Your task to perform on an android device: Clear the cart on costco.com. Add "apple airpods pro" to the cart on costco.com, then select checkout. Image 0: 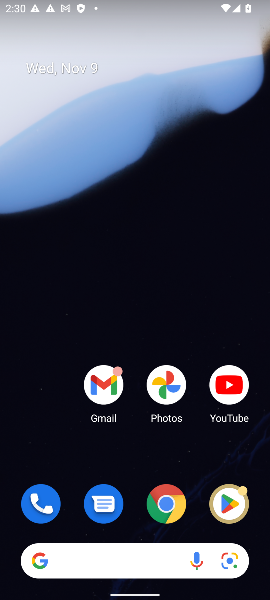
Step 0: click (175, 504)
Your task to perform on an android device: Clear the cart on costco.com. Add "apple airpods pro" to the cart on costco.com, then select checkout. Image 1: 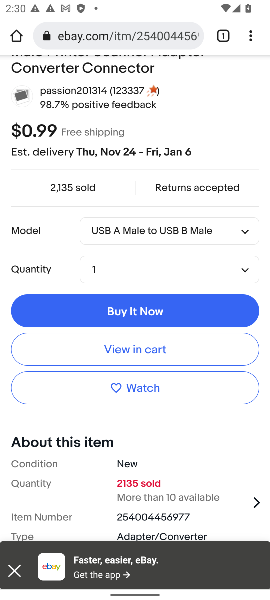
Step 1: click (99, 43)
Your task to perform on an android device: Clear the cart on costco.com. Add "apple airpods pro" to the cart on costco.com, then select checkout. Image 2: 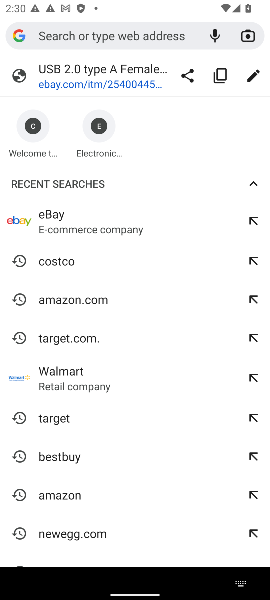
Step 2: type "costco.com"
Your task to perform on an android device: Clear the cart on costco.com. Add "apple airpods pro" to the cart on costco.com, then select checkout. Image 3: 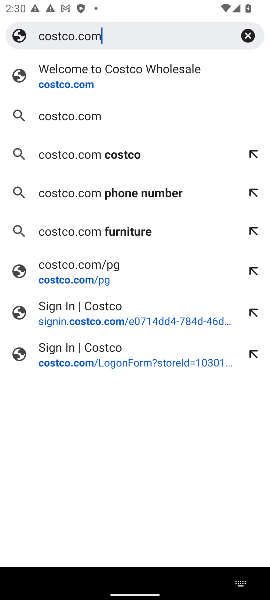
Step 3: click (58, 84)
Your task to perform on an android device: Clear the cart on costco.com. Add "apple airpods pro" to the cart on costco.com, then select checkout. Image 4: 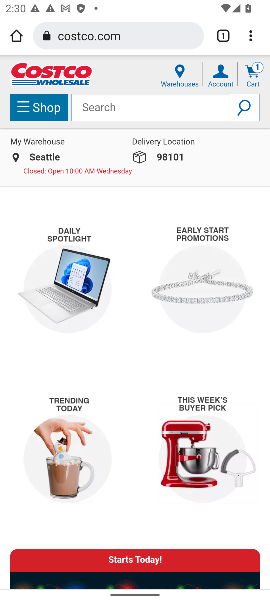
Step 4: click (106, 108)
Your task to perform on an android device: Clear the cart on costco.com. Add "apple airpods pro" to the cart on costco.com, then select checkout. Image 5: 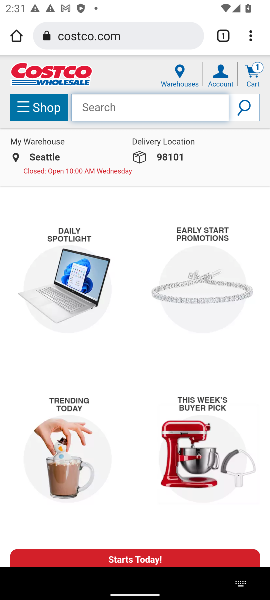
Step 5: type "apple airpods pro"
Your task to perform on an android device: Clear the cart on costco.com. Add "apple airpods pro" to the cart on costco.com, then select checkout. Image 6: 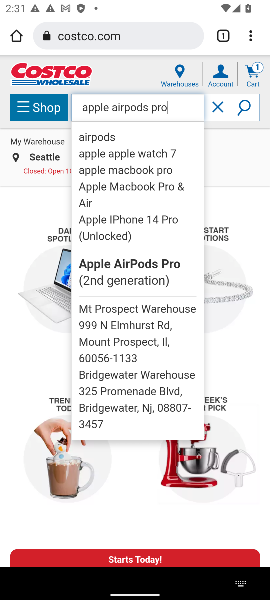
Step 6: click (247, 111)
Your task to perform on an android device: Clear the cart on costco.com. Add "apple airpods pro" to the cart on costco.com, then select checkout. Image 7: 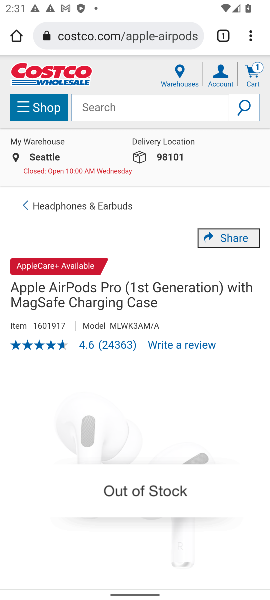
Step 7: press back button
Your task to perform on an android device: Clear the cart on costco.com. Add "apple airpods pro" to the cart on costco.com, then select checkout. Image 8: 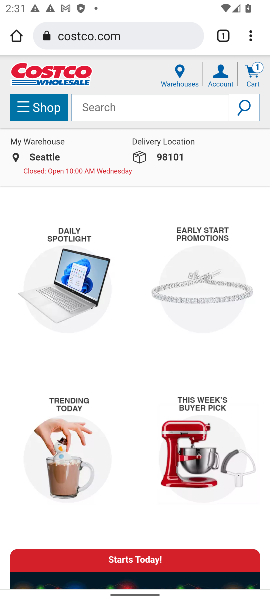
Step 8: drag from (124, 452) to (116, 199)
Your task to perform on an android device: Clear the cart on costco.com. Add "apple airpods pro" to the cart on costco.com, then select checkout. Image 9: 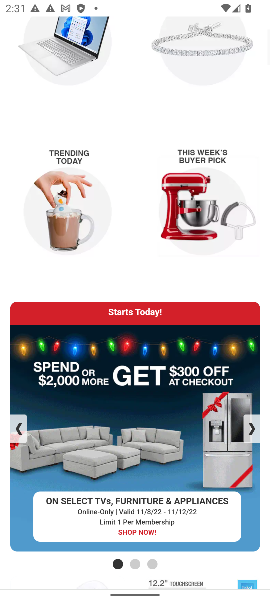
Step 9: drag from (119, 452) to (125, 597)
Your task to perform on an android device: Clear the cart on costco.com. Add "apple airpods pro" to the cart on costco.com, then select checkout. Image 10: 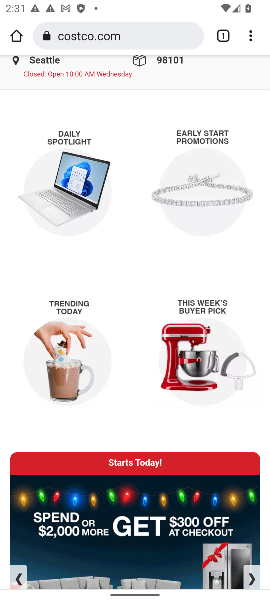
Step 10: drag from (95, 166) to (100, 319)
Your task to perform on an android device: Clear the cart on costco.com. Add "apple airpods pro" to the cart on costco.com, then select checkout. Image 11: 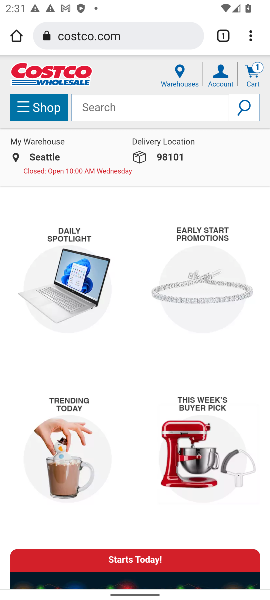
Step 11: click (105, 110)
Your task to perform on an android device: Clear the cart on costco.com. Add "apple airpods pro" to the cart on costco.com, then select checkout. Image 12: 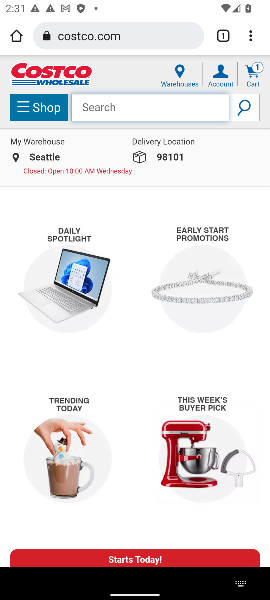
Step 12: type "apple airpods pro"
Your task to perform on an android device: Clear the cart on costco.com. Add "apple airpods pro" to the cart on costco.com, then select checkout. Image 13: 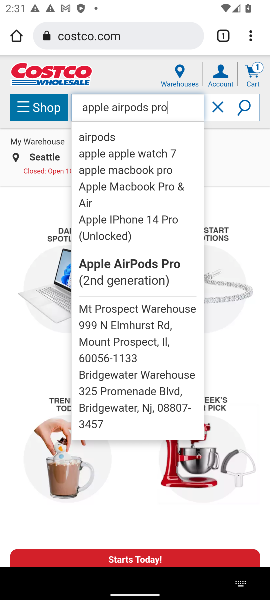
Step 13: click (244, 112)
Your task to perform on an android device: Clear the cart on costco.com. Add "apple airpods pro" to the cart on costco.com, then select checkout. Image 14: 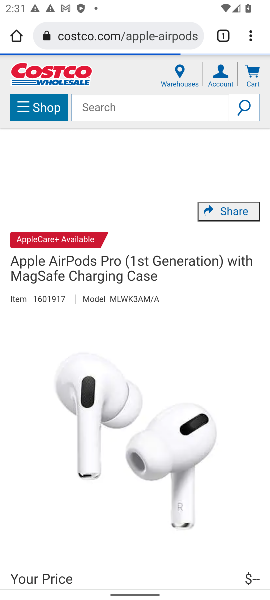
Step 14: drag from (160, 356) to (143, 149)
Your task to perform on an android device: Clear the cart on costco.com. Add "apple airpods pro" to the cart on costco.com, then select checkout. Image 15: 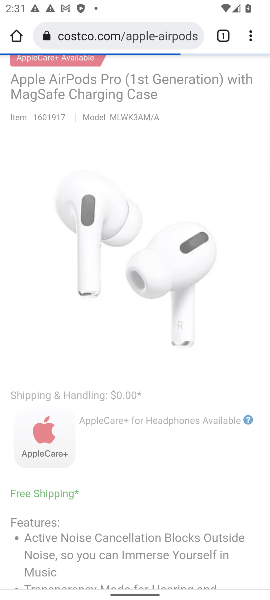
Step 15: drag from (114, 492) to (122, 177)
Your task to perform on an android device: Clear the cart on costco.com. Add "apple airpods pro" to the cart on costco.com, then select checkout. Image 16: 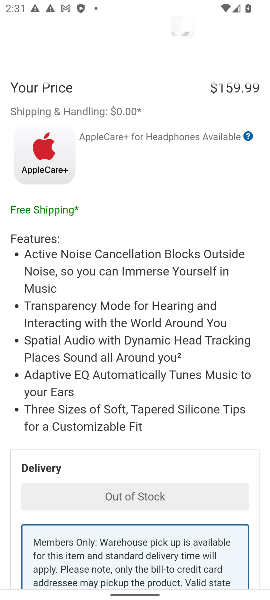
Step 16: drag from (123, 490) to (114, 197)
Your task to perform on an android device: Clear the cart on costco.com. Add "apple airpods pro" to the cart on costco.com, then select checkout. Image 17: 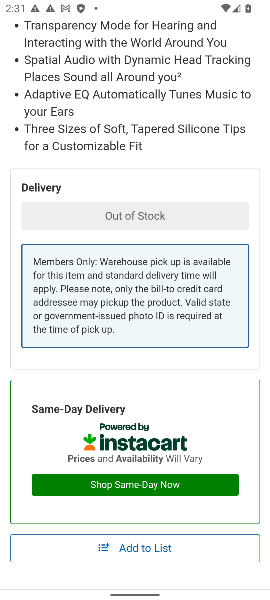
Step 17: drag from (113, 190) to (139, 585)
Your task to perform on an android device: Clear the cart on costco.com. Add "apple airpods pro" to the cart on costco.com, then select checkout. Image 18: 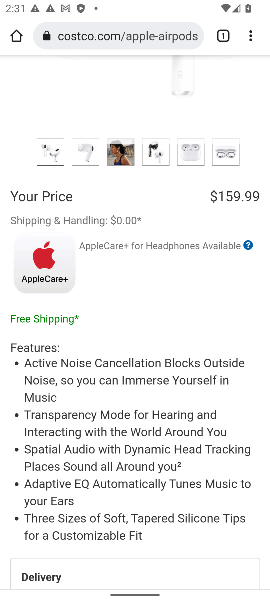
Step 18: drag from (140, 152) to (127, 507)
Your task to perform on an android device: Clear the cart on costco.com. Add "apple airpods pro" to the cart on costco.com, then select checkout. Image 19: 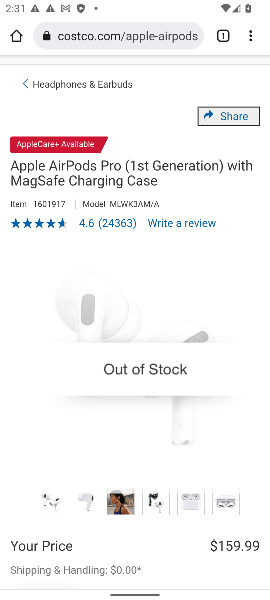
Step 19: drag from (153, 88) to (156, 369)
Your task to perform on an android device: Clear the cart on costco.com. Add "apple airpods pro" to the cart on costco.com, then select checkout. Image 20: 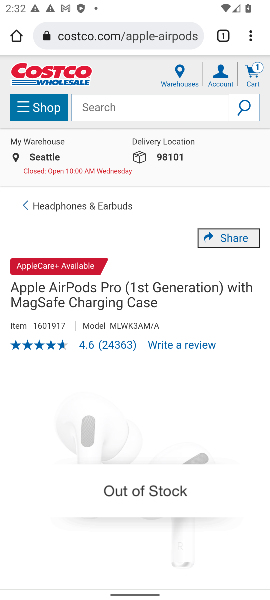
Step 20: click (18, 203)
Your task to perform on an android device: Clear the cart on costco.com. Add "apple airpods pro" to the cart on costco.com, then select checkout. Image 21: 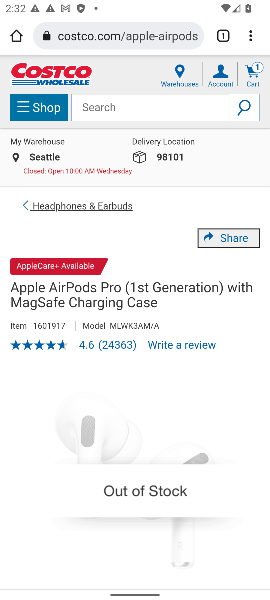
Step 21: click (24, 204)
Your task to perform on an android device: Clear the cart on costco.com. Add "apple airpods pro" to the cart on costco.com, then select checkout. Image 22: 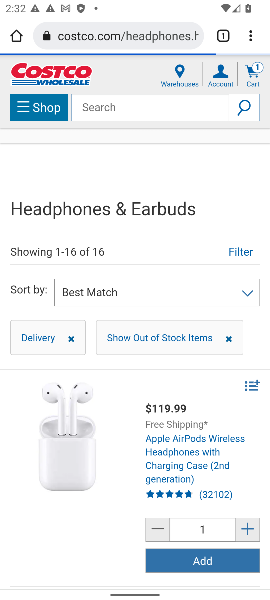
Step 22: drag from (118, 410) to (120, 177)
Your task to perform on an android device: Clear the cart on costco.com. Add "apple airpods pro" to the cart on costco.com, then select checkout. Image 23: 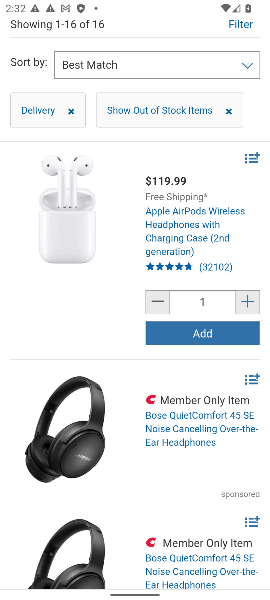
Step 23: drag from (136, 397) to (134, 152)
Your task to perform on an android device: Clear the cart on costco.com. Add "apple airpods pro" to the cart on costco.com, then select checkout. Image 24: 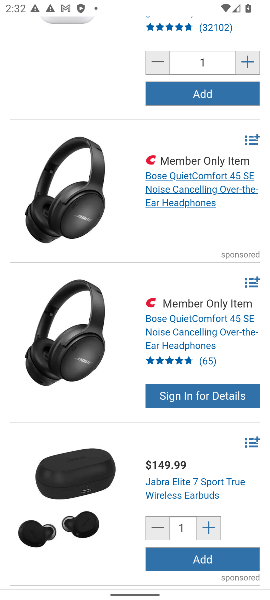
Step 24: drag from (122, 415) to (130, 130)
Your task to perform on an android device: Clear the cart on costco.com. Add "apple airpods pro" to the cart on costco.com, then select checkout. Image 25: 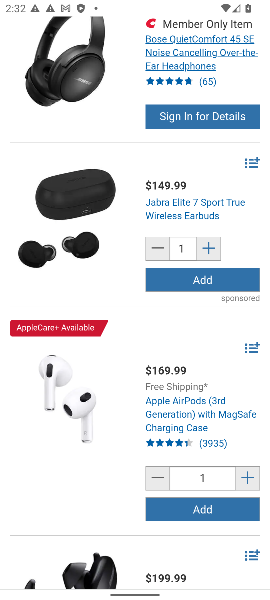
Step 25: drag from (127, 486) to (136, 294)
Your task to perform on an android device: Clear the cart on costco.com. Add "apple airpods pro" to the cart on costco.com, then select checkout. Image 26: 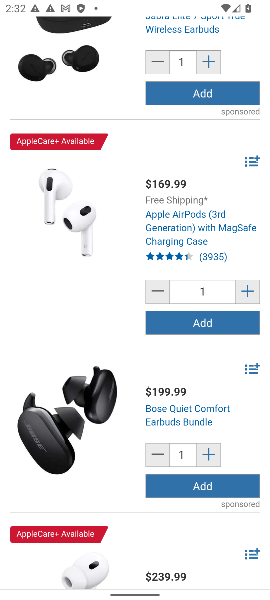
Step 26: drag from (105, 458) to (116, 236)
Your task to perform on an android device: Clear the cart on costco.com. Add "apple airpods pro" to the cart on costco.com, then select checkout. Image 27: 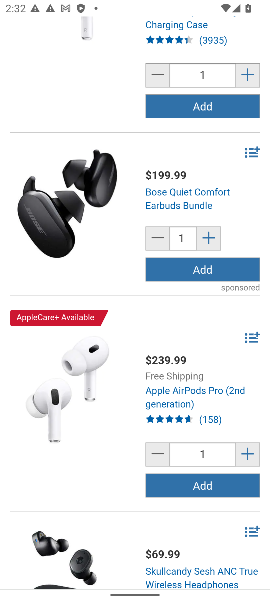
Step 27: click (195, 486)
Your task to perform on an android device: Clear the cart on costco.com. Add "apple airpods pro" to the cart on costco.com, then select checkout. Image 28: 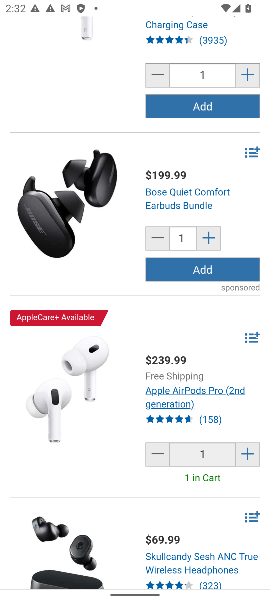
Step 28: click (83, 402)
Your task to perform on an android device: Clear the cart on costco.com. Add "apple airpods pro" to the cart on costco.com, then select checkout. Image 29: 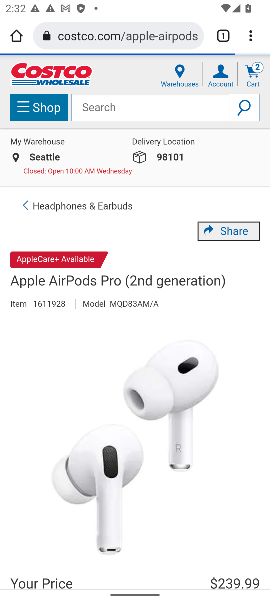
Step 29: drag from (140, 459) to (120, 134)
Your task to perform on an android device: Clear the cart on costco.com. Add "apple airpods pro" to the cart on costco.com, then select checkout. Image 30: 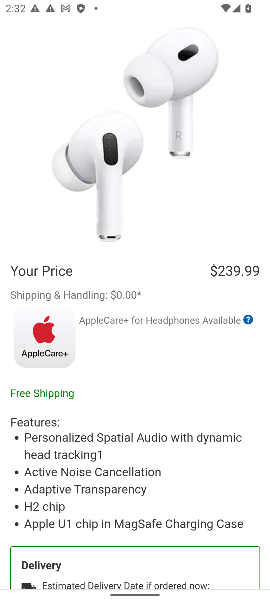
Step 30: drag from (124, 474) to (113, 160)
Your task to perform on an android device: Clear the cart on costco.com. Add "apple airpods pro" to the cart on costco.com, then select checkout. Image 31: 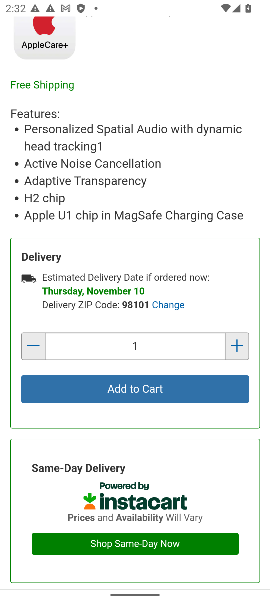
Step 31: click (138, 405)
Your task to perform on an android device: Clear the cart on costco.com. Add "apple airpods pro" to the cart on costco.com, then select checkout. Image 32: 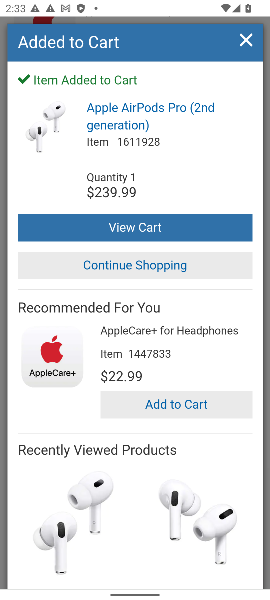
Step 32: click (126, 235)
Your task to perform on an android device: Clear the cart on costco.com. Add "apple airpods pro" to the cart on costco.com, then select checkout. Image 33: 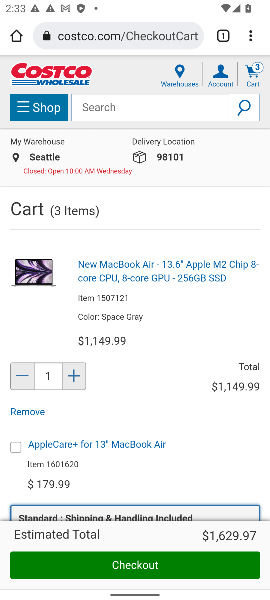
Step 33: click (131, 564)
Your task to perform on an android device: Clear the cart on costco.com. Add "apple airpods pro" to the cart on costco.com, then select checkout. Image 34: 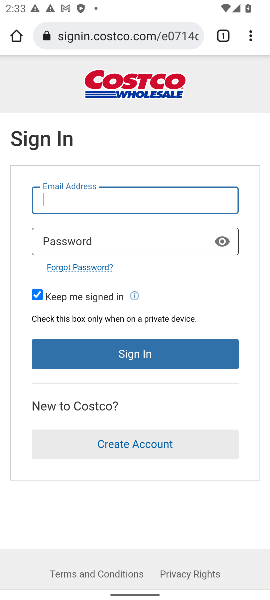
Step 34: task complete